Your task to perform on an android device: Turn on the flashlight Image 0: 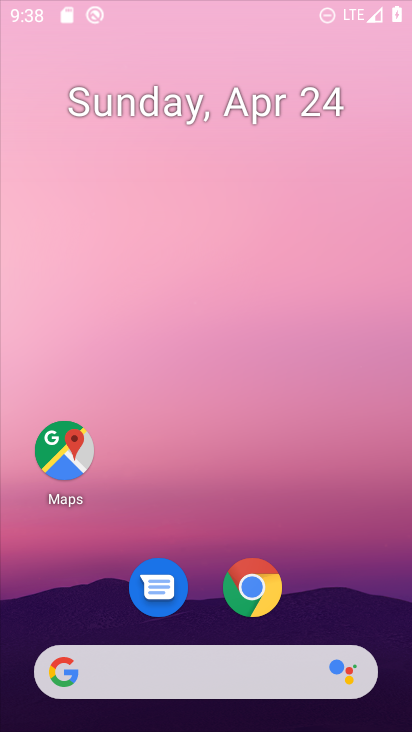
Step 0: drag from (370, 549) to (353, 78)
Your task to perform on an android device: Turn on the flashlight Image 1: 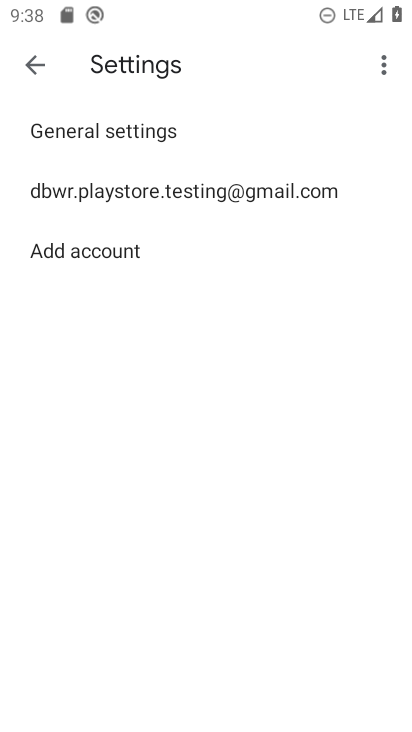
Step 1: click (220, 194)
Your task to perform on an android device: Turn on the flashlight Image 2: 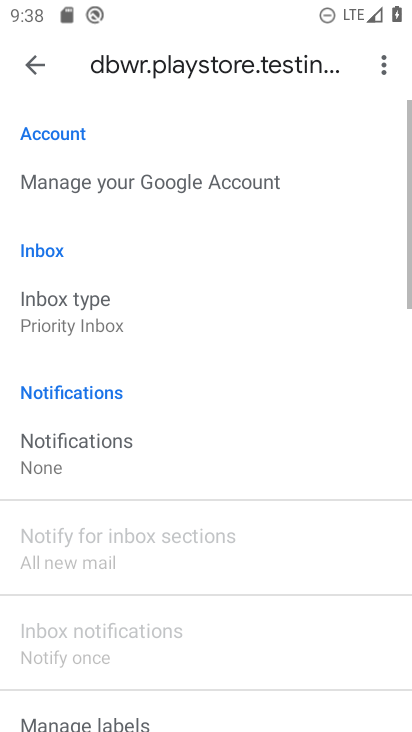
Step 2: press home button
Your task to perform on an android device: Turn on the flashlight Image 3: 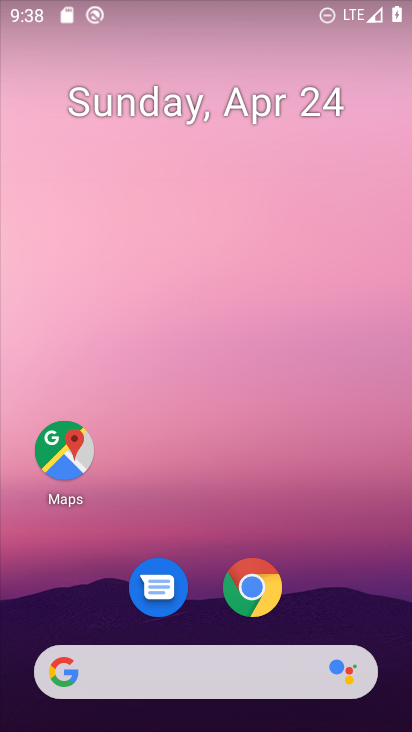
Step 3: drag from (335, 519) to (317, 116)
Your task to perform on an android device: Turn on the flashlight Image 4: 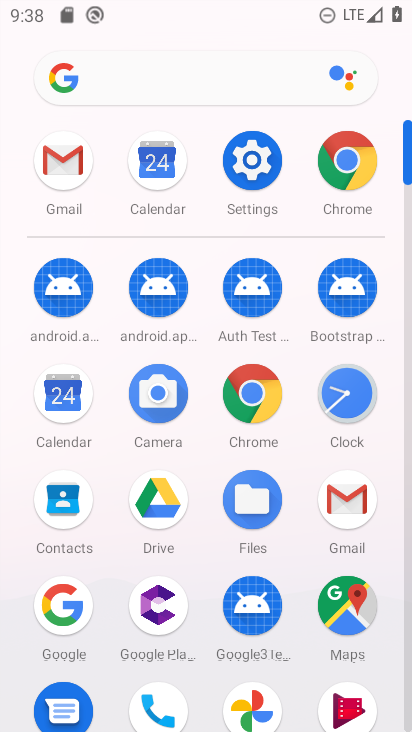
Step 4: click (254, 174)
Your task to perform on an android device: Turn on the flashlight Image 5: 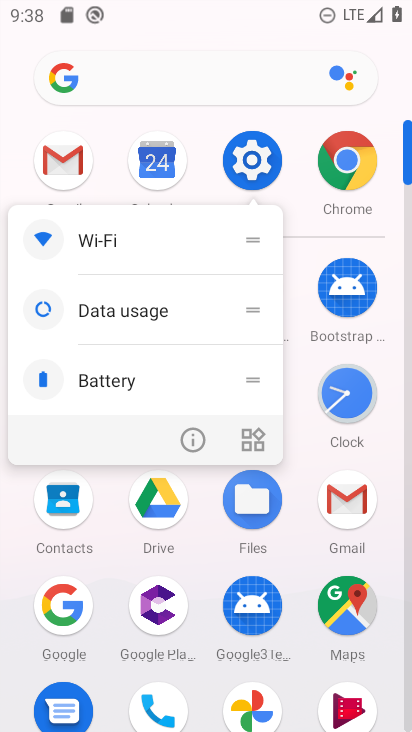
Step 5: click (250, 174)
Your task to perform on an android device: Turn on the flashlight Image 6: 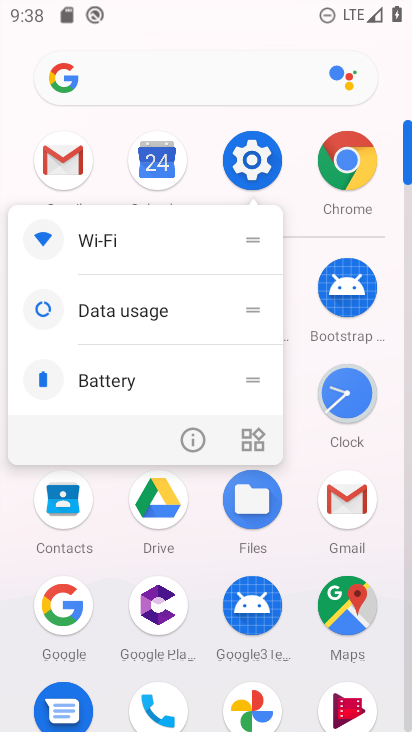
Step 6: click (246, 181)
Your task to perform on an android device: Turn on the flashlight Image 7: 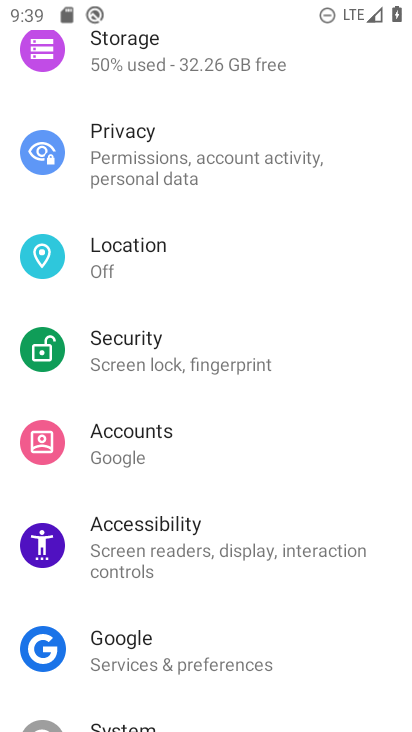
Step 7: drag from (352, 149) to (315, 585)
Your task to perform on an android device: Turn on the flashlight Image 8: 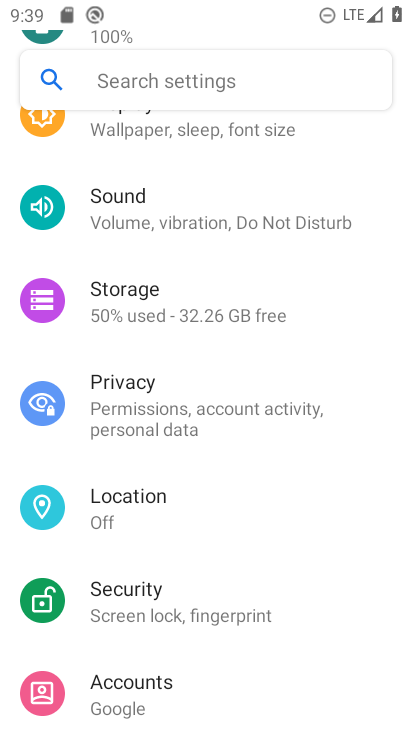
Step 8: click (259, 79)
Your task to perform on an android device: Turn on the flashlight Image 9: 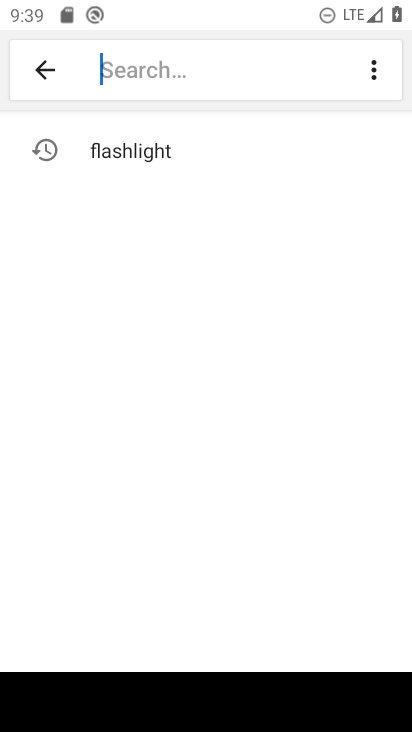
Step 9: type "flashlight"
Your task to perform on an android device: Turn on the flashlight Image 10: 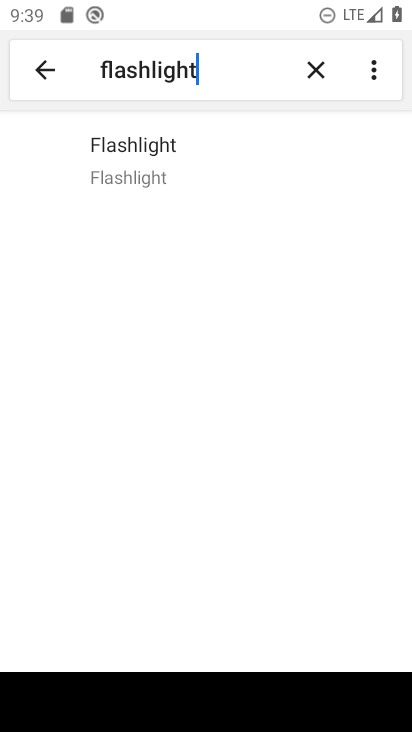
Step 10: click (129, 150)
Your task to perform on an android device: Turn on the flashlight Image 11: 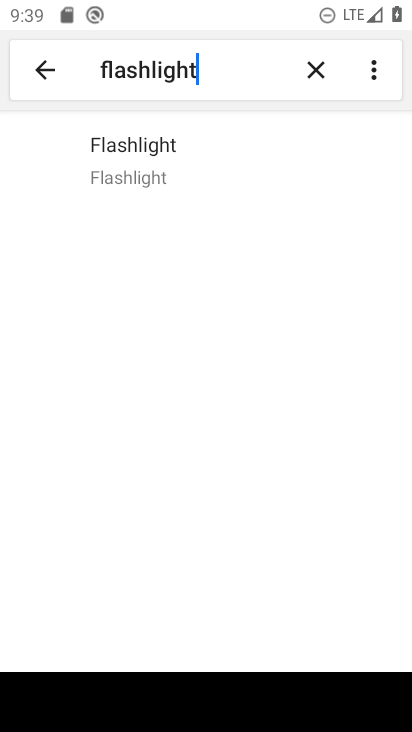
Step 11: task complete